Your task to perform on an android device: read, delete, or share a saved page in the chrome app Image 0: 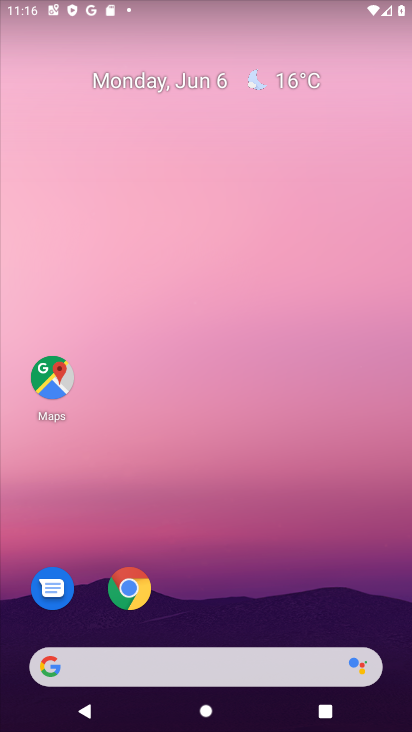
Step 0: click (122, 593)
Your task to perform on an android device: read, delete, or share a saved page in the chrome app Image 1: 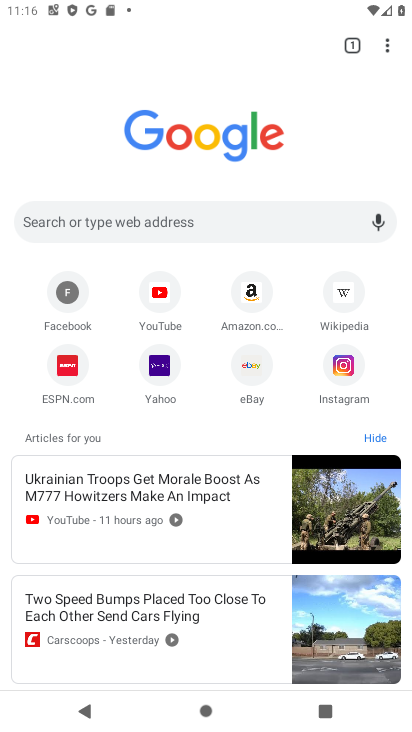
Step 1: click (388, 47)
Your task to perform on an android device: read, delete, or share a saved page in the chrome app Image 2: 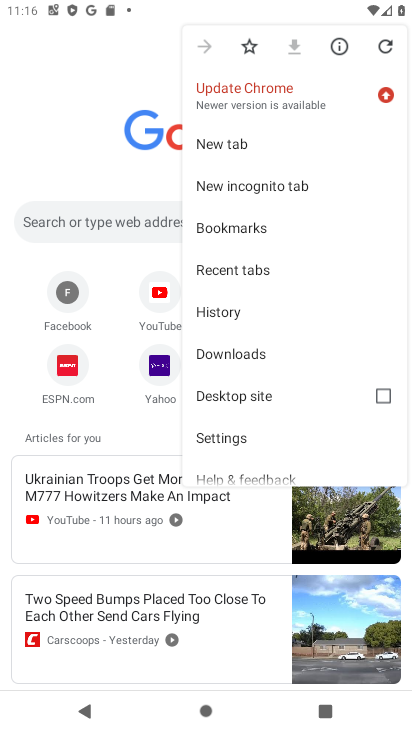
Step 2: click (230, 439)
Your task to perform on an android device: read, delete, or share a saved page in the chrome app Image 3: 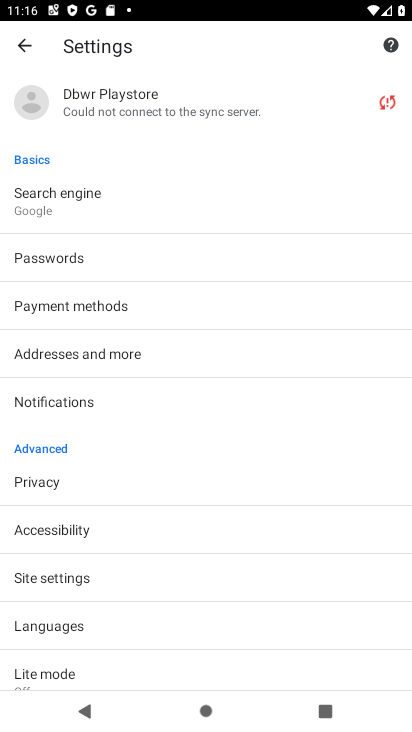
Step 3: drag from (203, 655) to (204, 582)
Your task to perform on an android device: read, delete, or share a saved page in the chrome app Image 4: 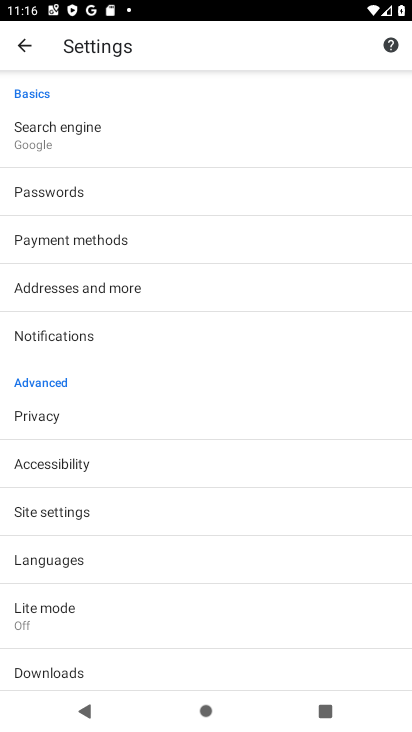
Step 4: click (93, 503)
Your task to perform on an android device: read, delete, or share a saved page in the chrome app Image 5: 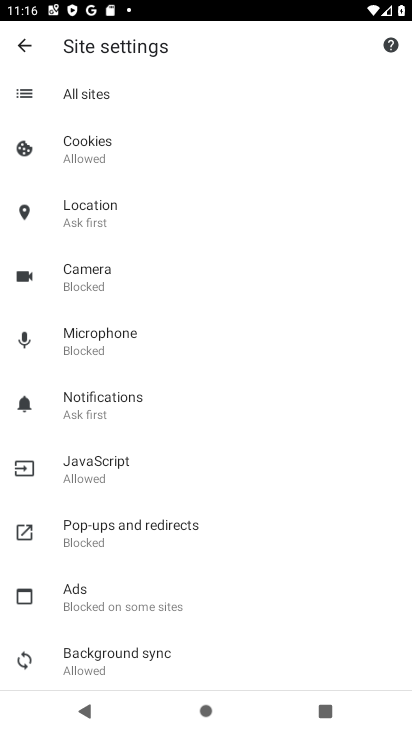
Step 5: task complete